Your task to perform on an android device: Go to Android settings Image 0: 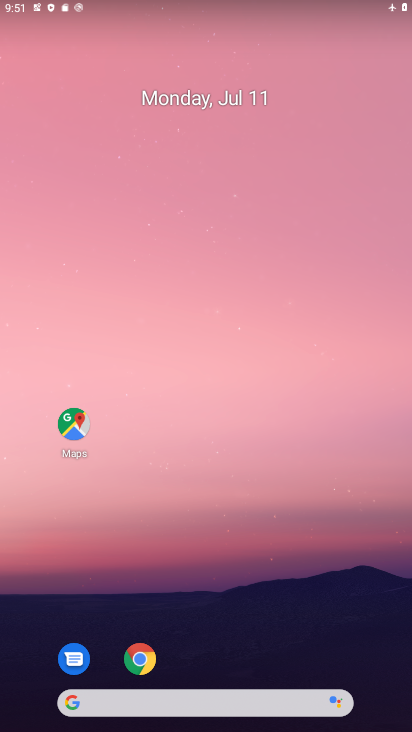
Step 0: drag from (204, 700) to (204, 79)
Your task to perform on an android device: Go to Android settings Image 1: 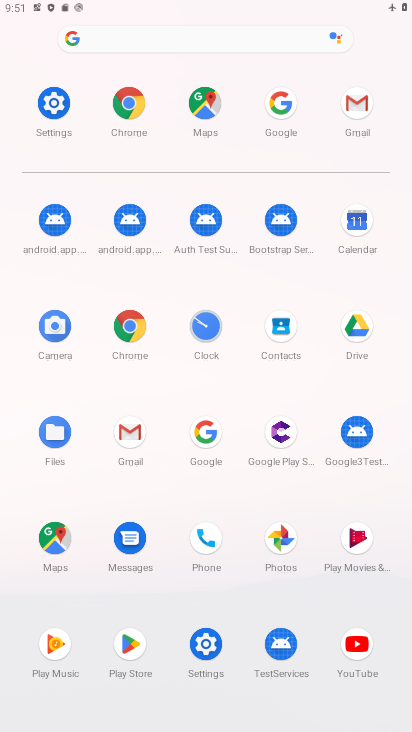
Step 1: click (53, 103)
Your task to perform on an android device: Go to Android settings Image 2: 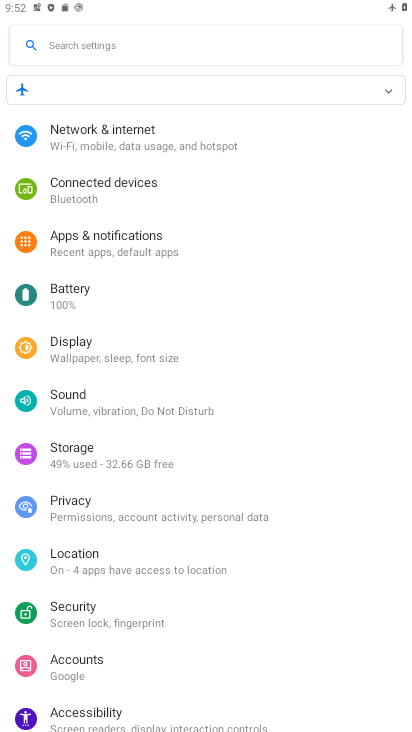
Step 2: task complete